Your task to perform on an android device: add a label to a message in the gmail app Image 0: 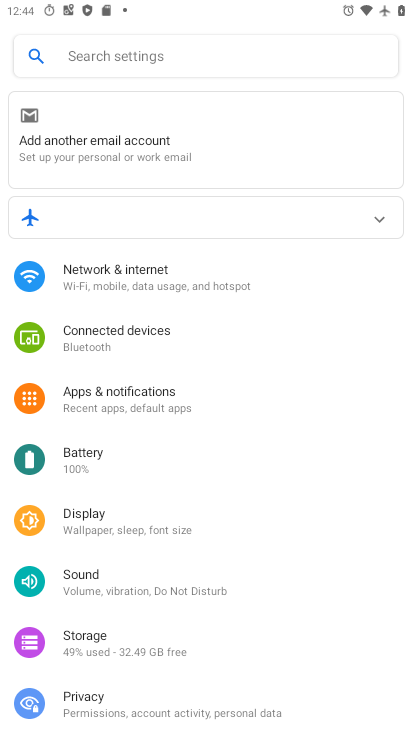
Step 0: press home button
Your task to perform on an android device: add a label to a message in the gmail app Image 1: 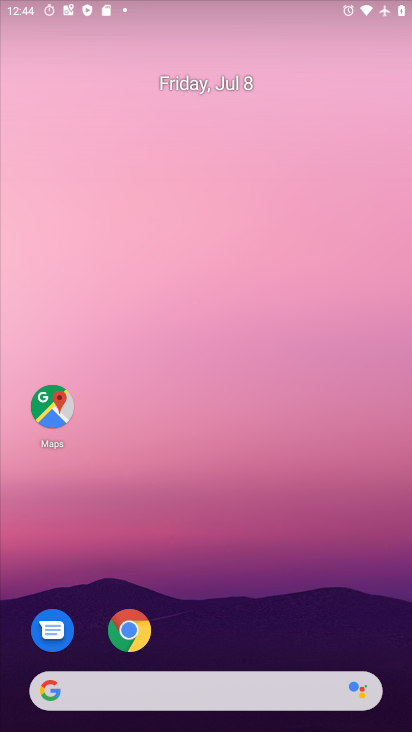
Step 1: drag from (206, 625) to (212, 336)
Your task to perform on an android device: add a label to a message in the gmail app Image 2: 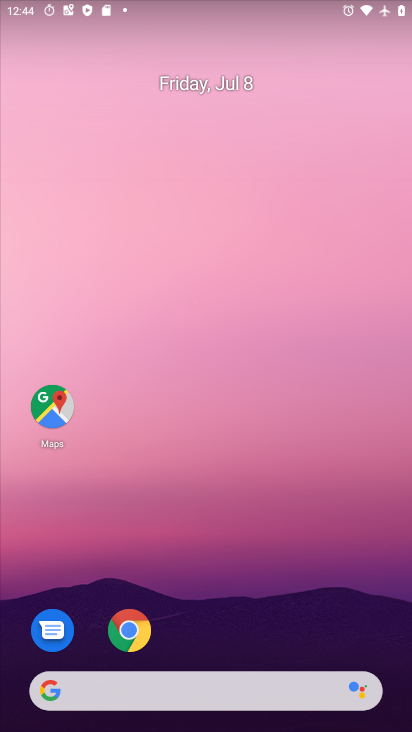
Step 2: drag from (223, 634) to (223, 53)
Your task to perform on an android device: add a label to a message in the gmail app Image 3: 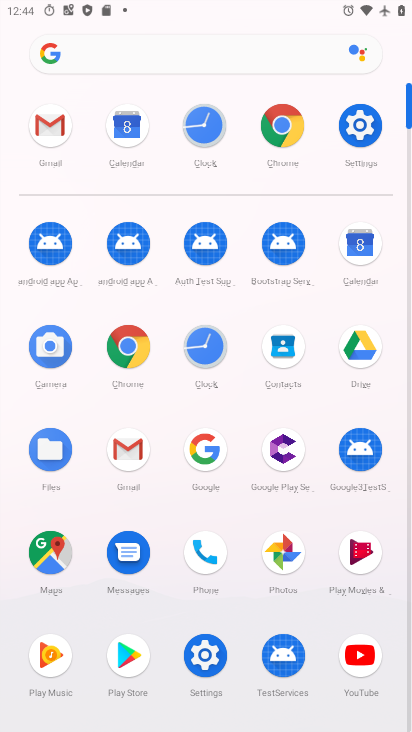
Step 3: click (127, 438)
Your task to perform on an android device: add a label to a message in the gmail app Image 4: 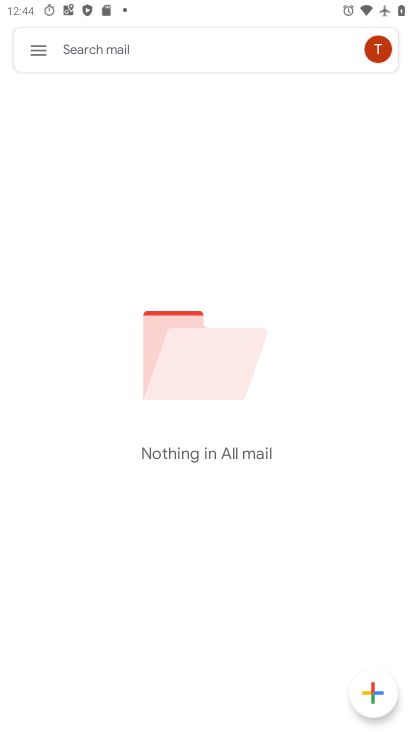
Step 4: task complete